Your task to perform on an android device: empty trash in google photos Image 0: 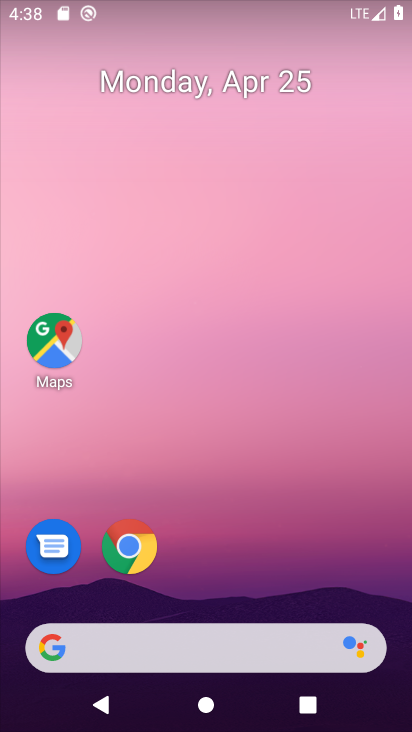
Step 0: drag from (279, 549) to (360, 32)
Your task to perform on an android device: empty trash in google photos Image 1: 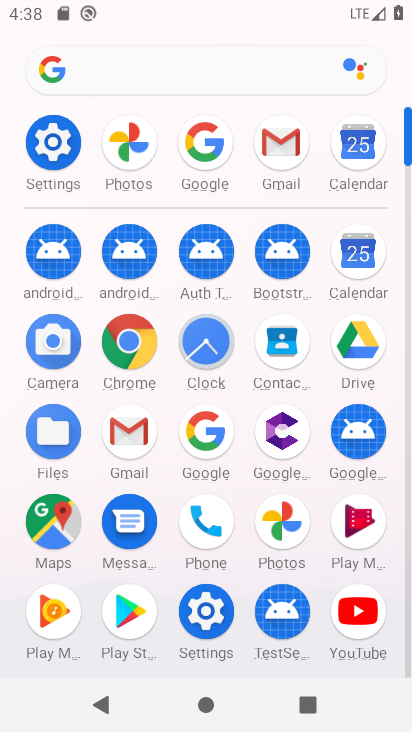
Step 1: click (287, 527)
Your task to perform on an android device: empty trash in google photos Image 2: 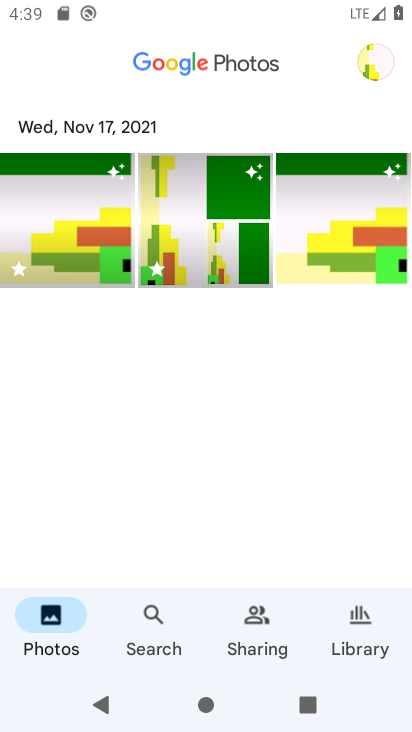
Step 2: click (376, 633)
Your task to perform on an android device: empty trash in google photos Image 3: 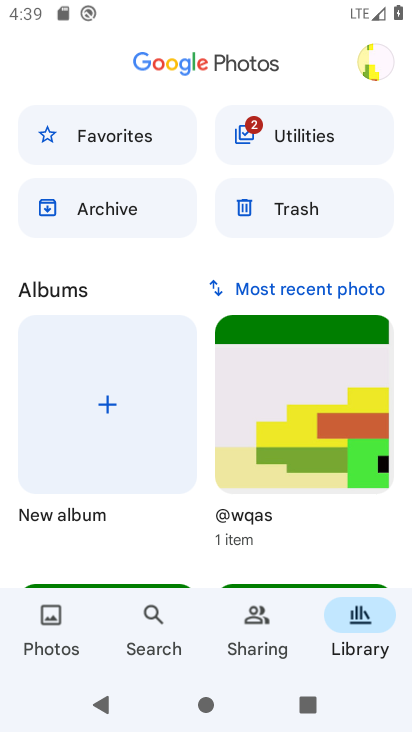
Step 3: click (292, 213)
Your task to perform on an android device: empty trash in google photos Image 4: 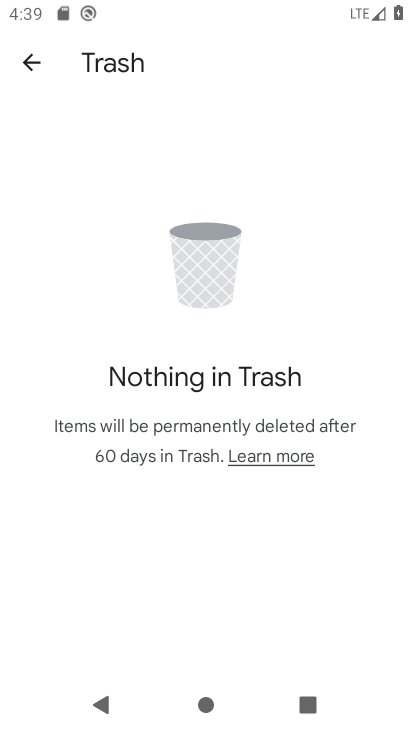
Step 4: task complete